Your task to perform on an android device: toggle improve location accuracy Image 0: 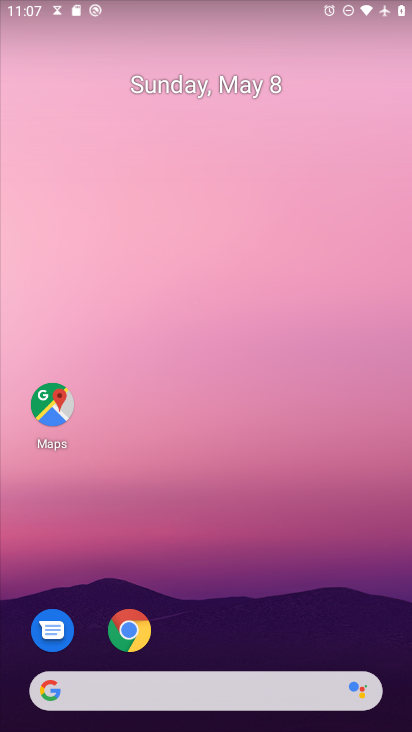
Step 0: drag from (172, 682) to (280, 101)
Your task to perform on an android device: toggle improve location accuracy Image 1: 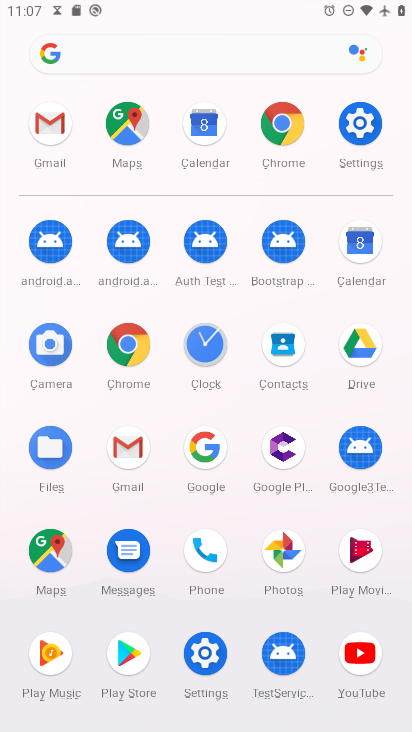
Step 1: click (361, 120)
Your task to perform on an android device: toggle improve location accuracy Image 2: 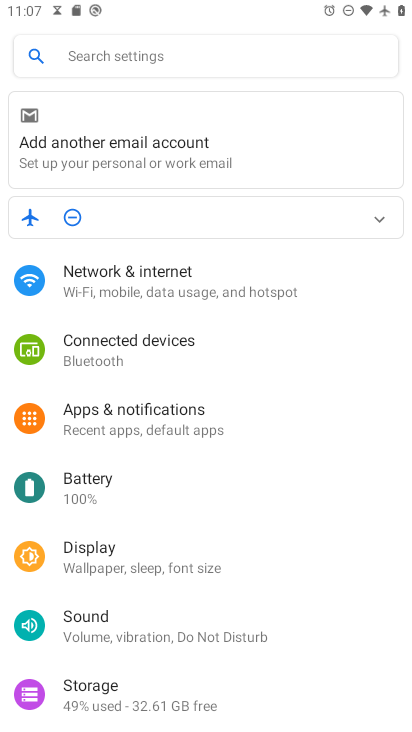
Step 2: drag from (182, 533) to (284, 225)
Your task to perform on an android device: toggle improve location accuracy Image 3: 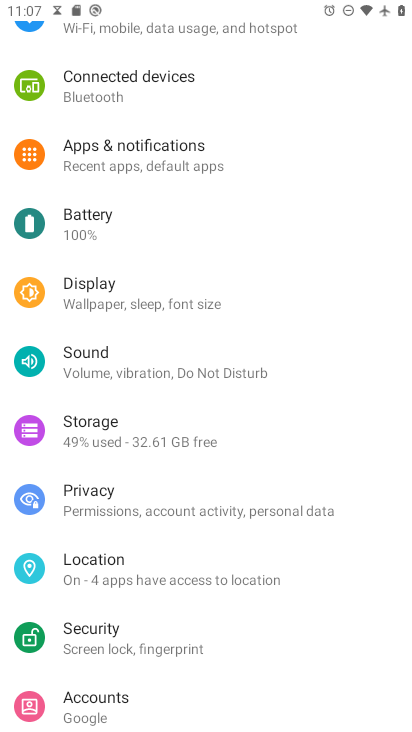
Step 3: click (145, 569)
Your task to perform on an android device: toggle improve location accuracy Image 4: 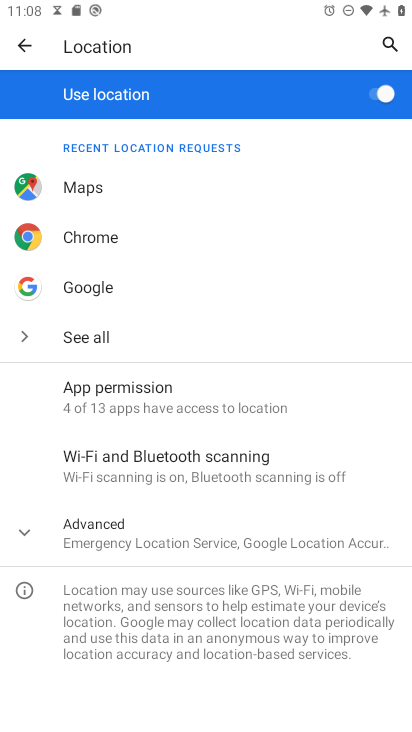
Step 4: click (132, 526)
Your task to perform on an android device: toggle improve location accuracy Image 5: 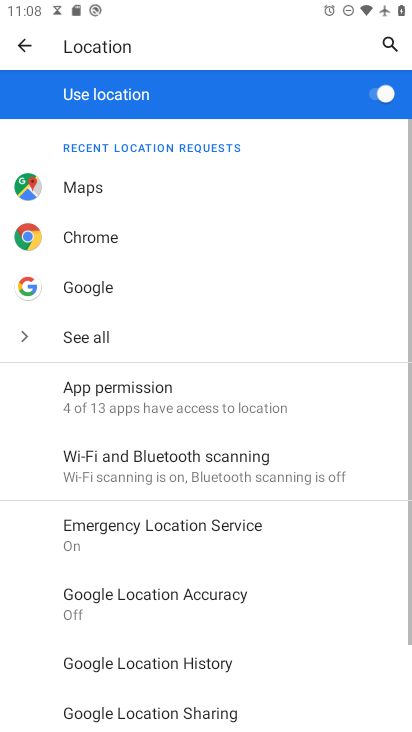
Step 5: click (145, 592)
Your task to perform on an android device: toggle improve location accuracy Image 6: 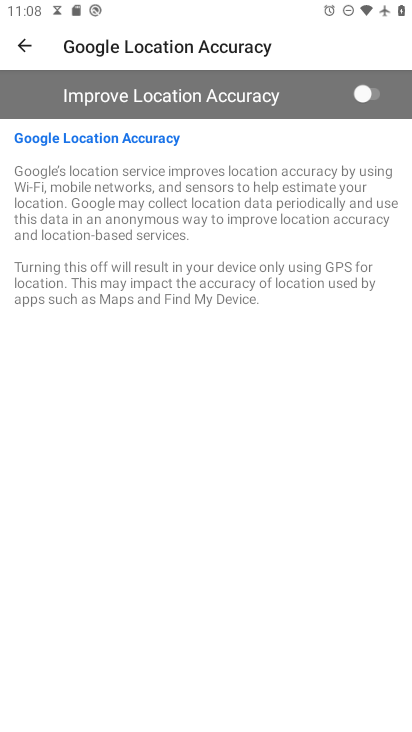
Step 6: click (371, 90)
Your task to perform on an android device: toggle improve location accuracy Image 7: 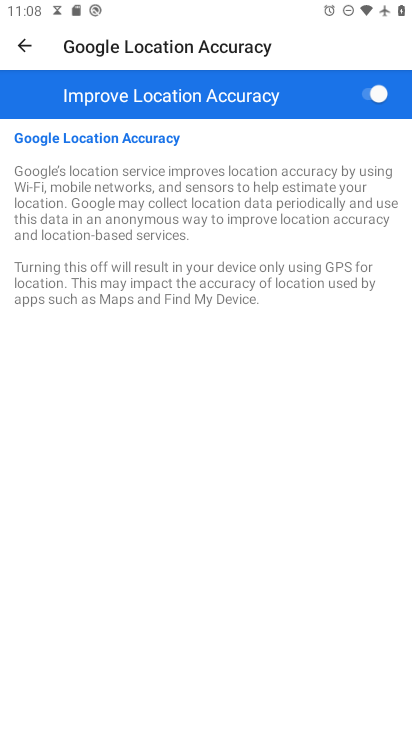
Step 7: task complete